Your task to perform on an android device: clear all cookies in the chrome app Image 0: 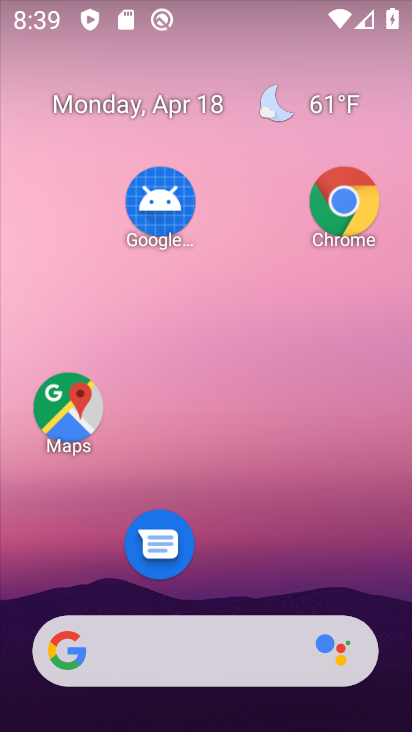
Step 0: click (339, 221)
Your task to perform on an android device: clear all cookies in the chrome app Image 1: 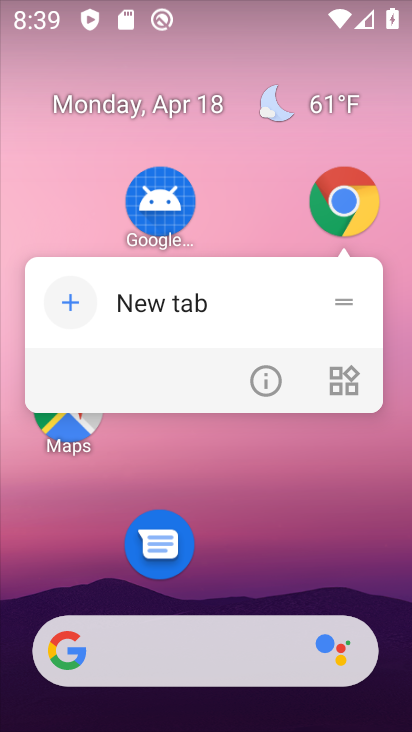
Step 1: click (338, 206)
Your task to perform on an android device: clear all cookies in the chrome app Image 2: 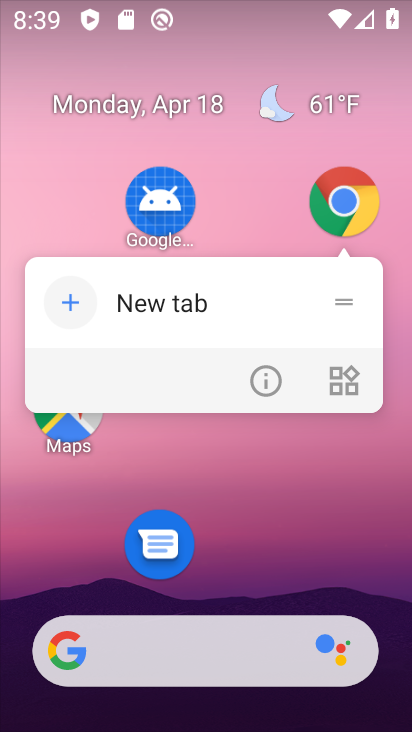
Step 2: click (344, 192)
Your task to perform on an android device: clear all cookies in the chrome app Image 3: 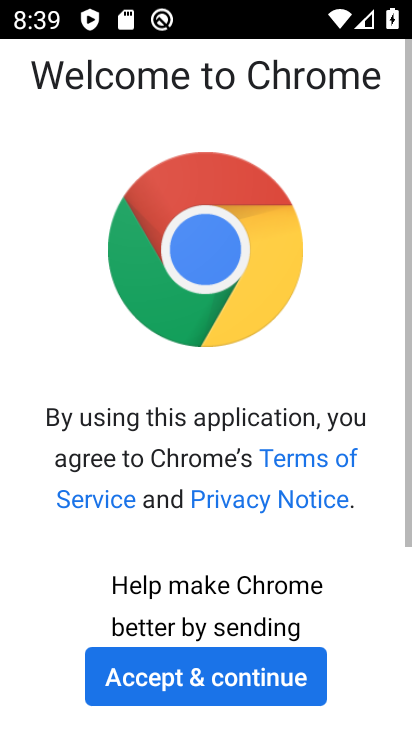
Step 3: click (237, 665)
Your task to perform on an android device: clear all cookies in the chrome app Image 4: 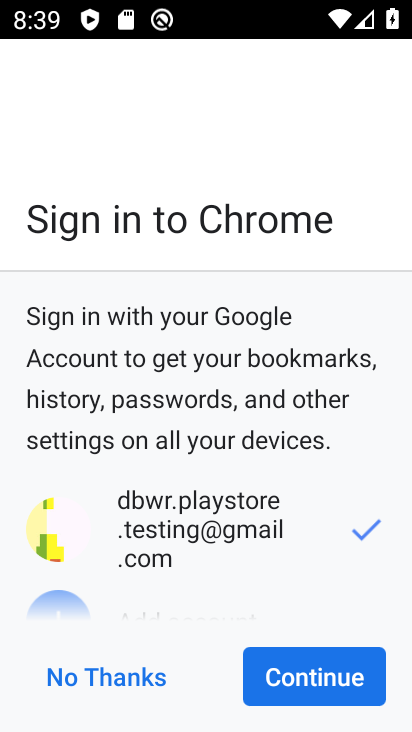
Step 4: click (309, 678)
Your task to perform on an android device: clear all cookies in the chrome app Image 5: 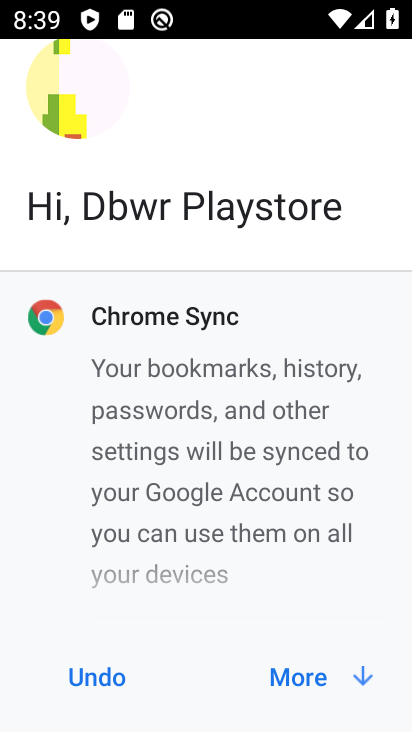
Step 5: click (304, 675)
Your task to perform on an android device: clear all cookies in the chrome app Image 6: 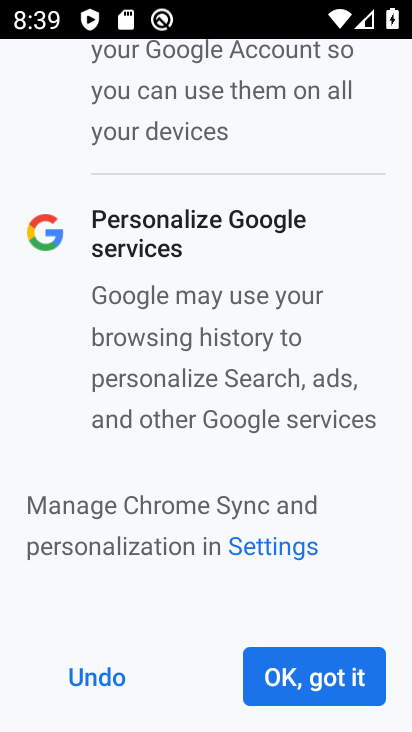
Step 6: click (302, 673)
Your task to perform on an android device: clear all cookies in the chrome app Image 7: 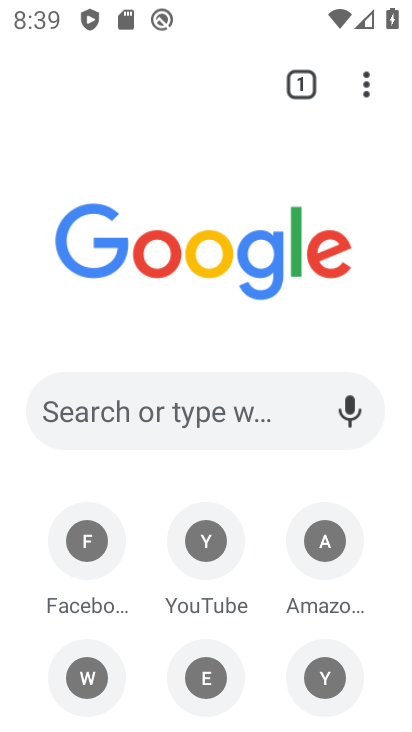
Step 7: click (363, 83)
Your task to perform on an android device: clear all cookies in the chrome app Image 8: 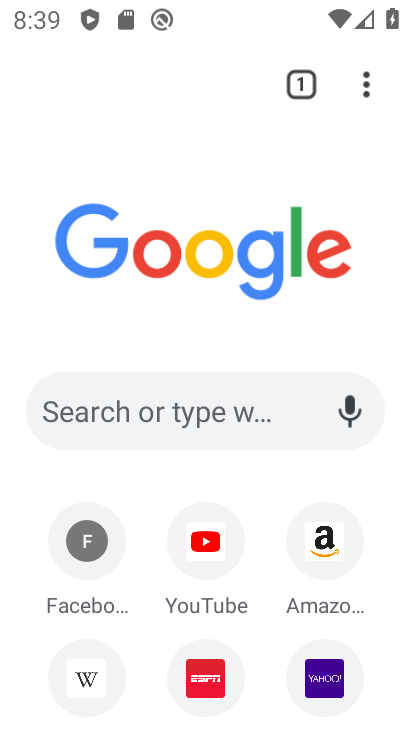
Step 8: click (359, 86)
Your task to perform on an android device: clear all cookies in the chrome app Image 9: 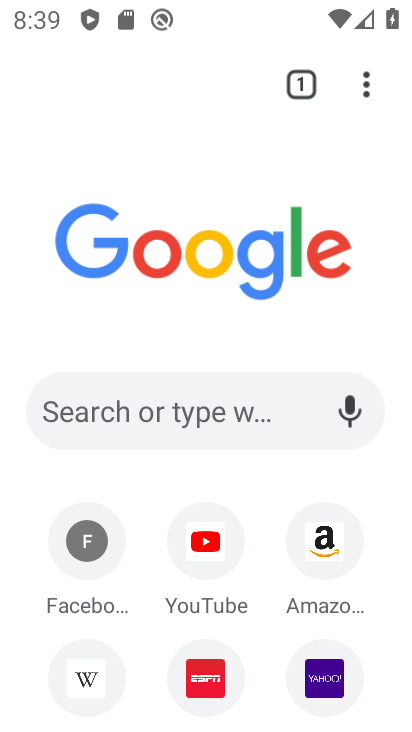
Step 9: click (358, 86)
Your task to perform on an android device: clear all cookies in the chrome app Image 10: 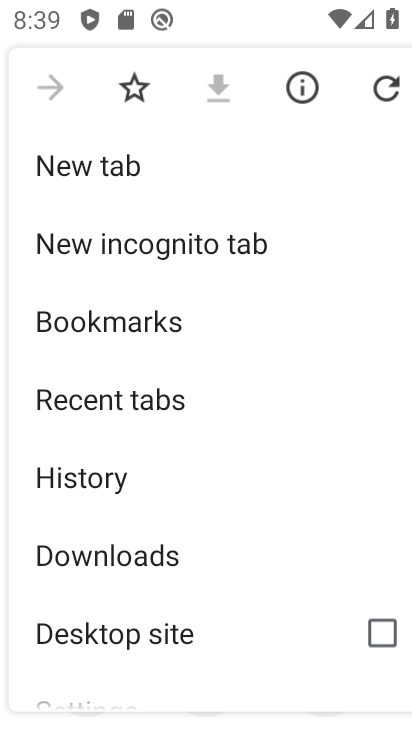
Step 10: drag from (216, 564) to (214, 145)
Your task to perform on an android device: clear all cookies in the chrome app Image 11: 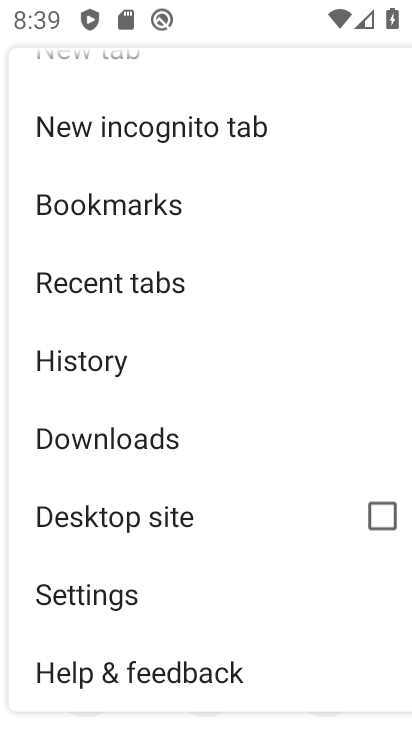
Step 11: click (93, 582)
Your task to perform on an android device: clear all cookies in the chrome app Image 12: 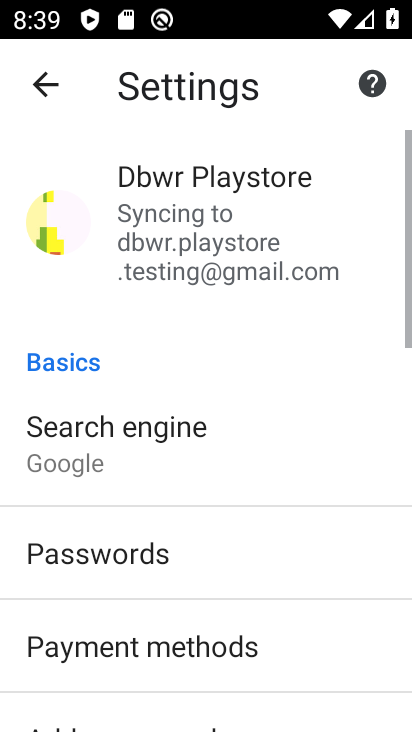
Step 12: drag from (136, 580) to (106, 117)
Your task to perform on an android device: clear all cookies in the chrome app Image 13: 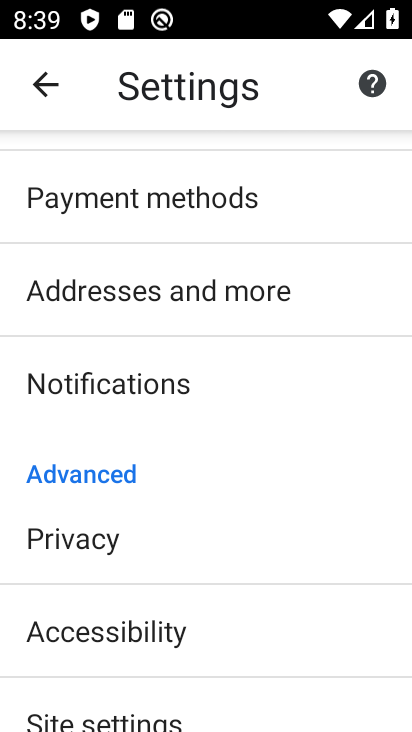
Step 13: click (93, 533)
Your task to perform on an android device: clear all cookies in the chrome app Image 14: 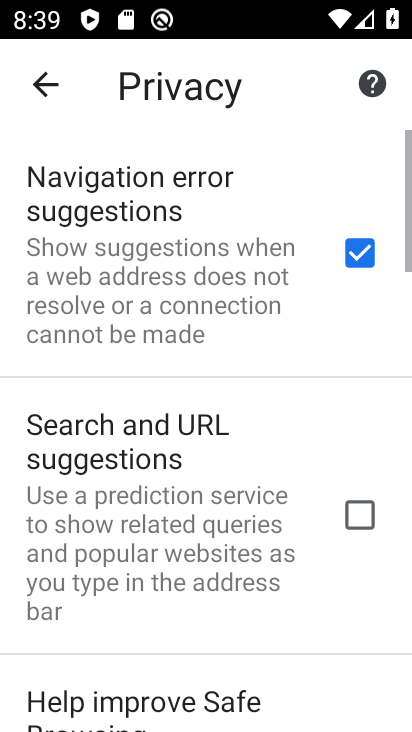
Step 14: drag from (156, 621) to (138, 7)
Your task to perform on an android device: clear all cookies in the chrome app Image 15: 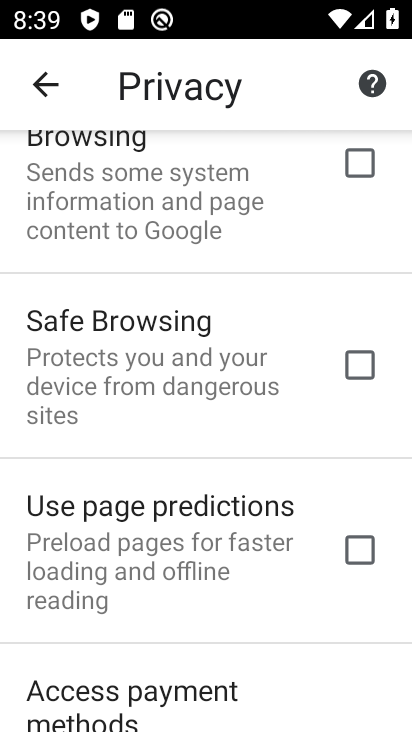
Step 15: drag from (178, 639) to (179, 111)
Your task to perform on an android device: clear all cookies in the chrome app Image 16: 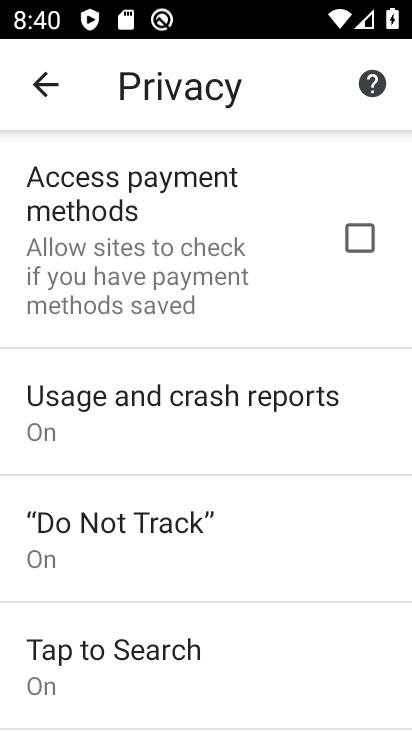
Step 16: drag from (188, 629) to (192, 104)
Your task to perform on an android device: clear all cookies in the chrome app Image 17: 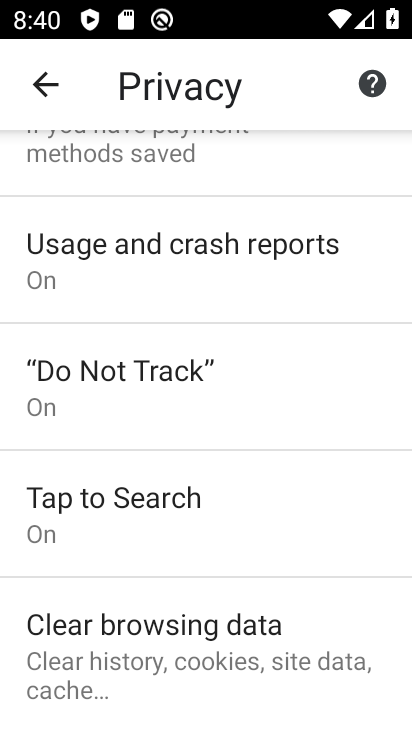
Step 17: click (191, 647)
Your task to perform on an android device: clear all cookies in the chrome app Image 18: 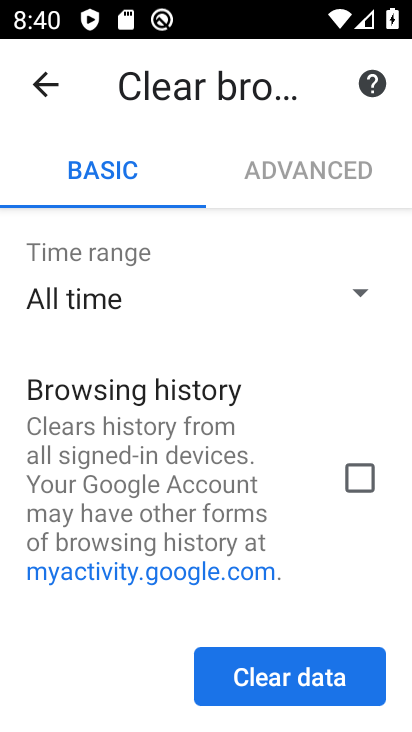
Step 18: drag from (292, 535) to (243, 223)
Your task to perform on an android device: clear all cookies in the chrome app Image 19: 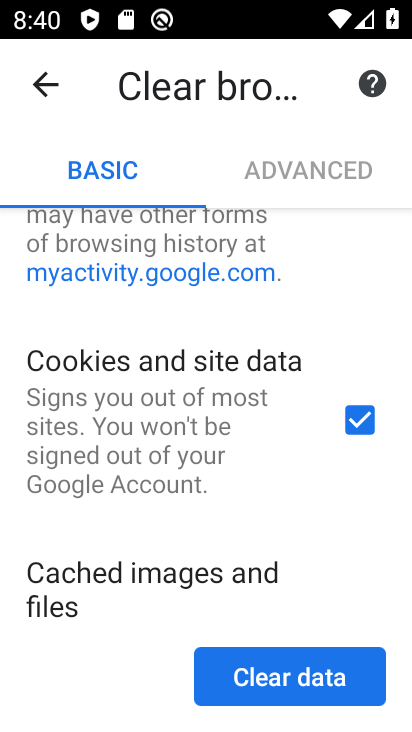
Step 19: click (252, 690)
Your task to perform on an android device: clear all cookies in the chrome app Image 20: 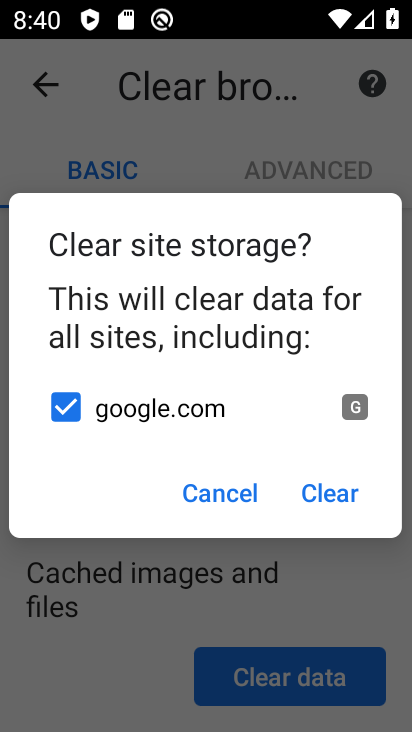
Step 20: click (319, 505)
Your task to perform on an android device: clear all cookies in the chrome app Image 21: 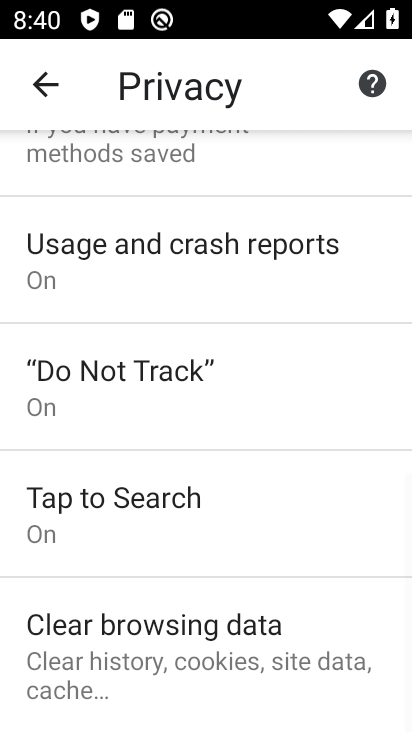
Step 21: task complete